Your task to perform on an android device: View the shopping cart on ebay.com. Add logitech g502 to the cart on ebay.com Image 0: 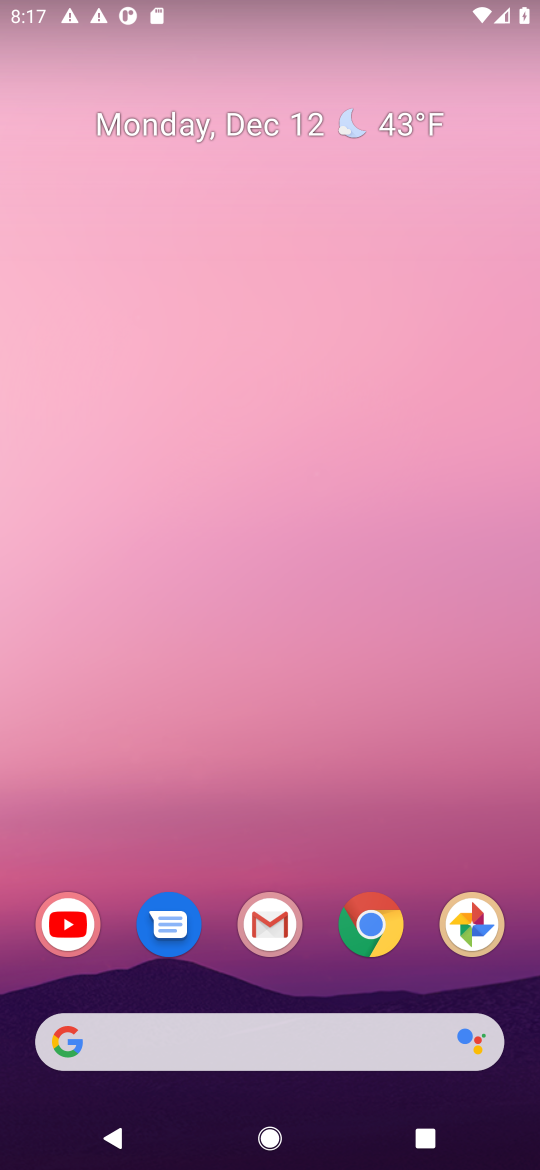
Step 0: click (239, 1054)
Your task to perform on an android device: View the shopping cart on ebay.com. Add logitech g502 to the cart on ebay.com Image 1: 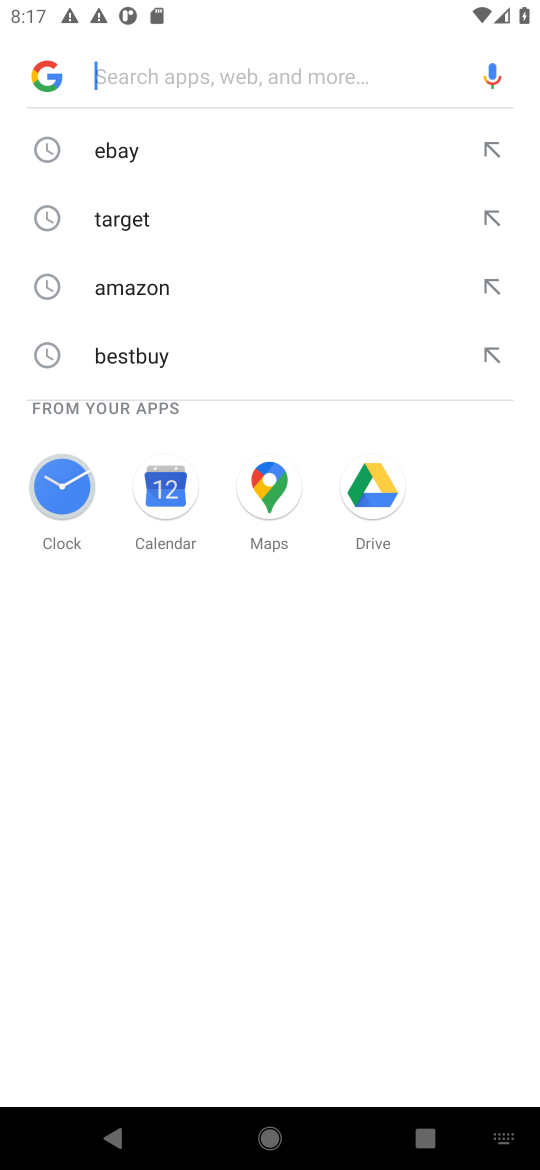
Step 1: click (112, 159)
Your task to perform on an android device: View the shopping cart on ebay.com. Add logitech g502 to the cart on ebay.com Image 2: 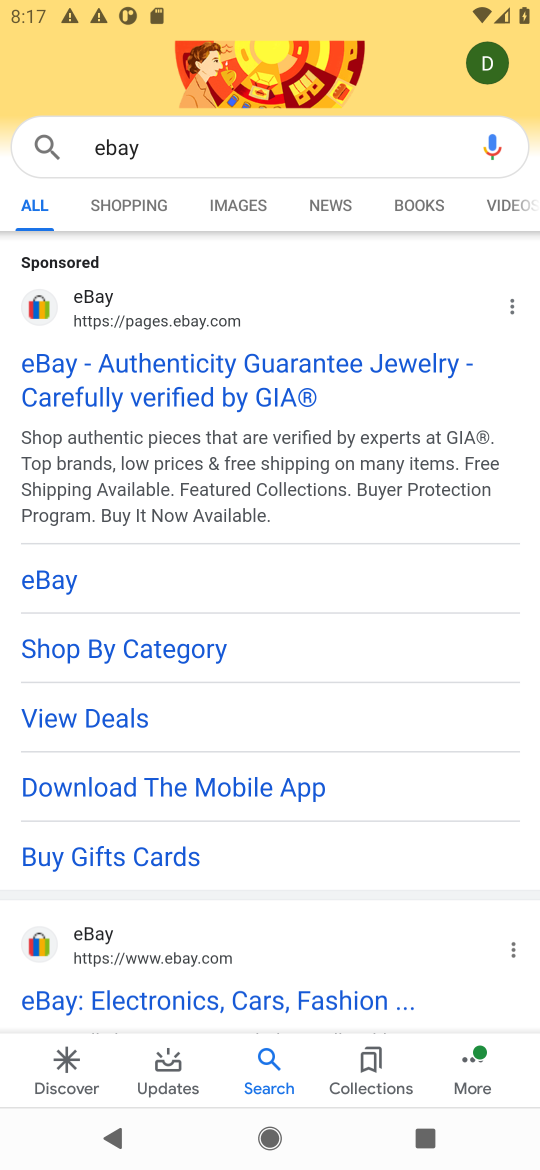
Step 2: click (80, 382)
Your task to perform on an android device: View the shopping cart on ebay.com. Add logitech g502 to the cart on ebay.com Image 3: 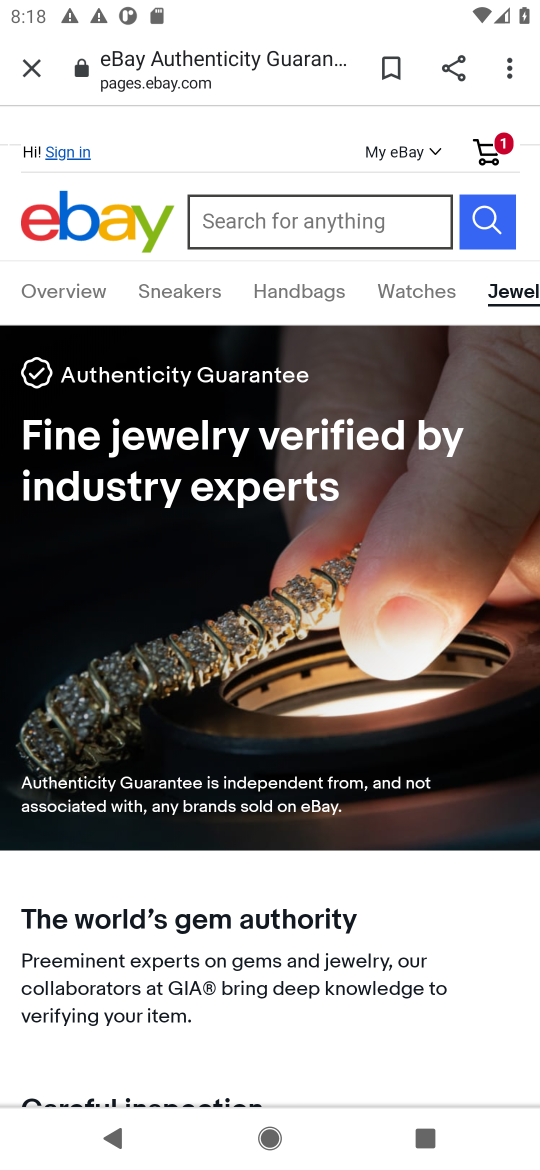
Step 3: click (492, 154)
Your task to perform on an android device: View the shopping cart on ebay.com. Add logitech g502 to the cart on ebay.com Image 4: 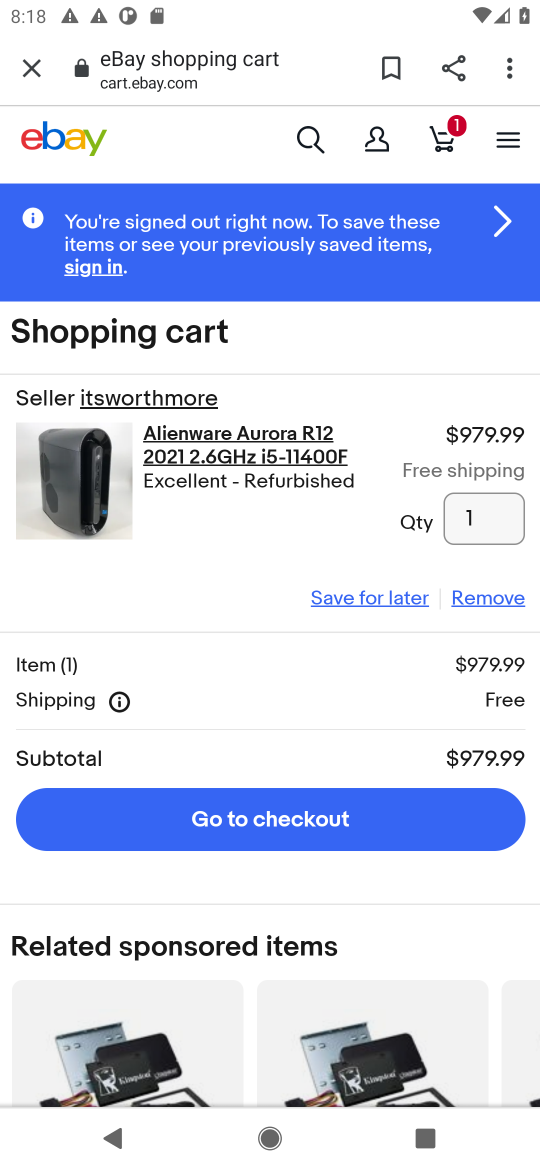
Step 4: click (471, 593)
Your task to perform on an android device: View the shopping cart on ebay.com. Add logitech g502 to the cart on ebay.com Image 5: 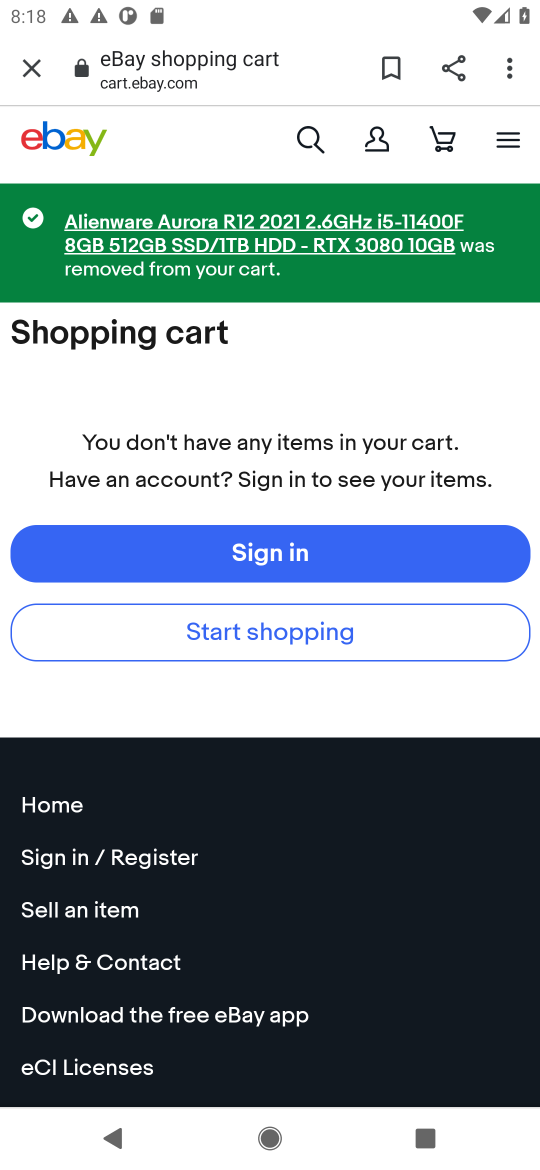
Step 5: click (308, 134)
Your task to perform on an android device: View the shopping cart on ebay.com. Add logitech g502 to the cart on ebay.com Image 6: 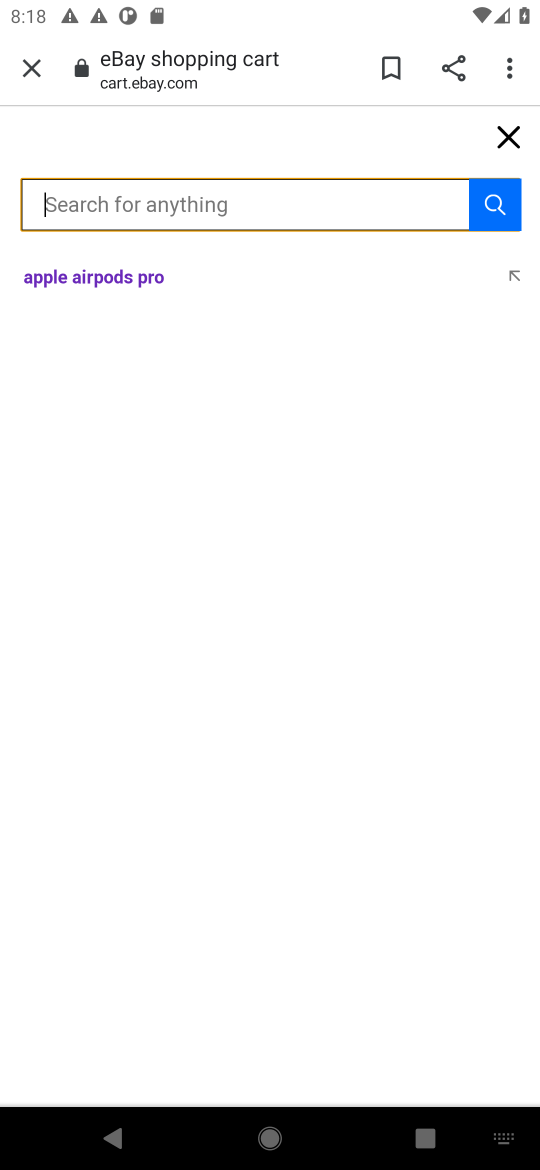
Step 6: type "logitech g502"
Your task to perform on an android device: View the shopping cart on ebay.com. Add logitech g502 to the cart on ebay.com Image 7: 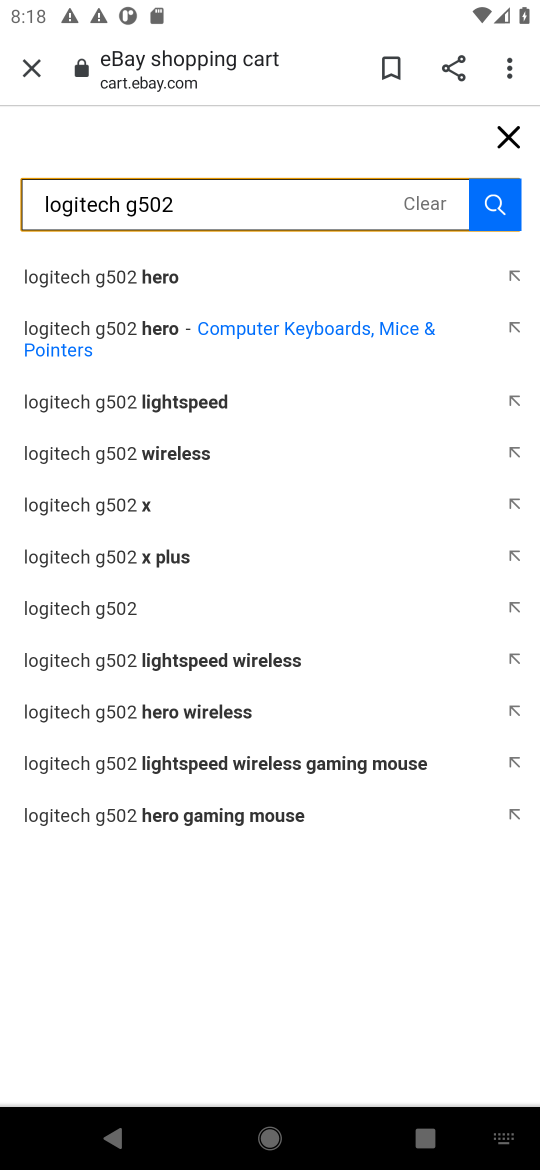
Step 7: click (84, 619)
Your task to perform on an android device: View the shopping cart on ebay.com. Add logitech g502 to the cart on ebay.com Image 8: 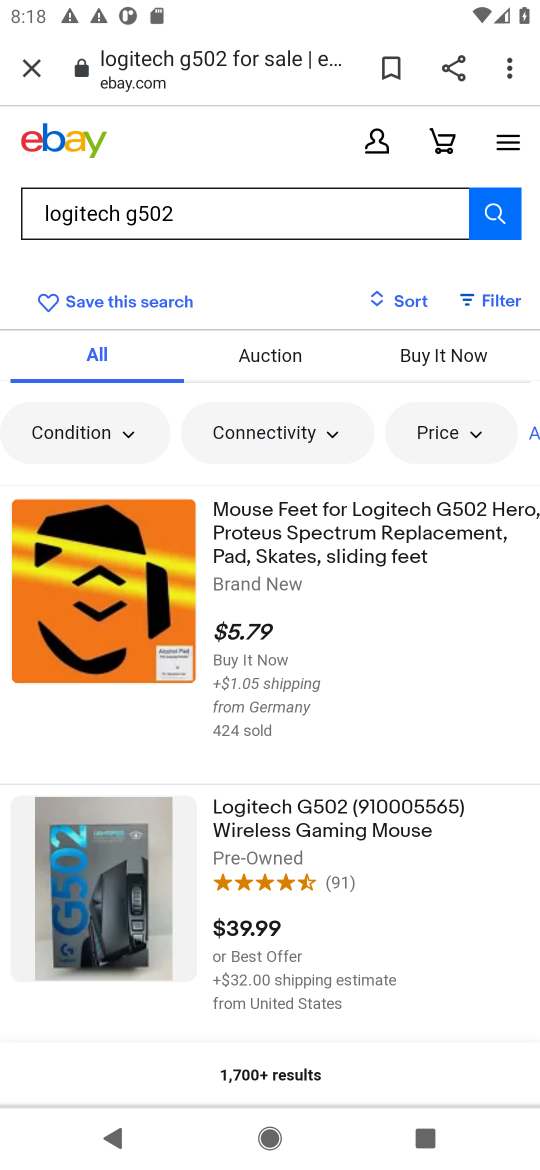
Step 8: click (250, 559)
Your task to perform on an android device: View the shopping cart on ebay.com. Add logitech g502 to the cart on ebay.com Image 9: 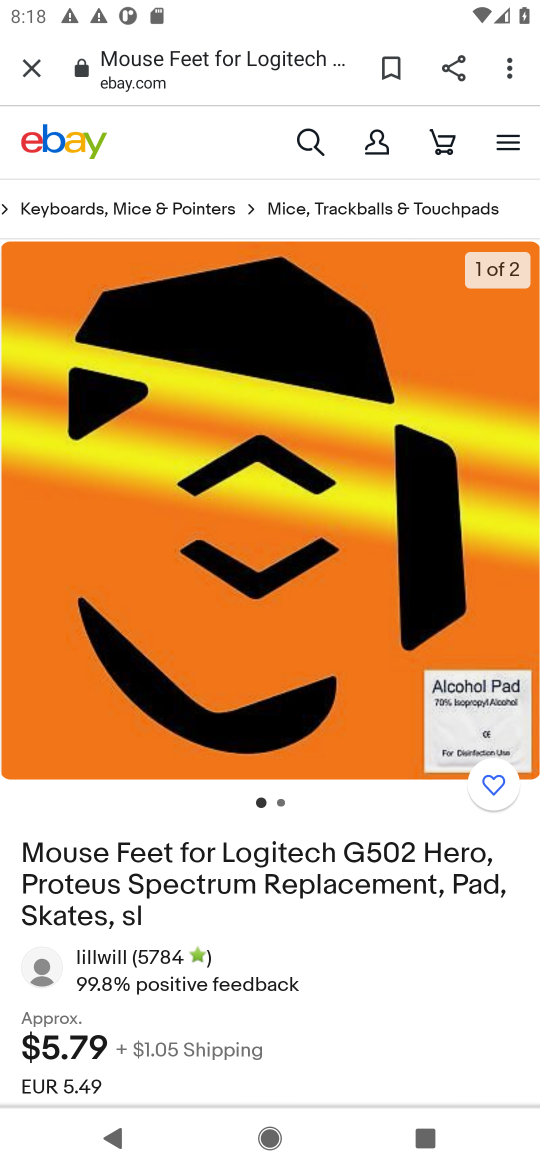
Step 9: drag from (429, 990) to (430, 769)
Your task to perform on an android device: View the shopping cart on ebay.com. Add logitech g502 to the cart on ebay.com Image 10: 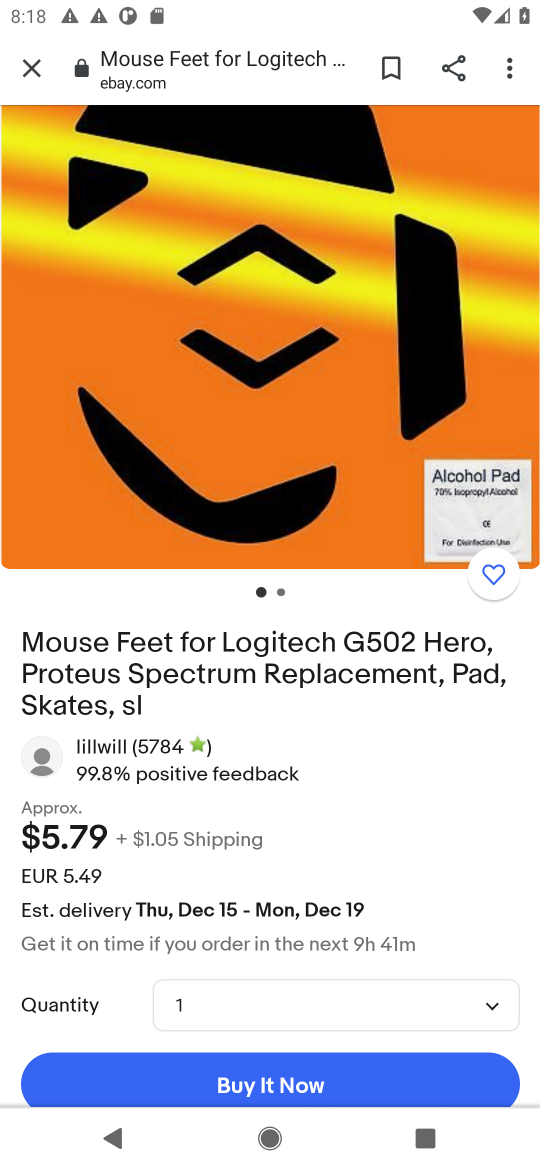
Step 10: drag from (356, 906) to (387, 684)
Your task to perform on an android device: View the shopping cart on ebay.com. Add logitech g502 to the cart on ebay.com Image 11: 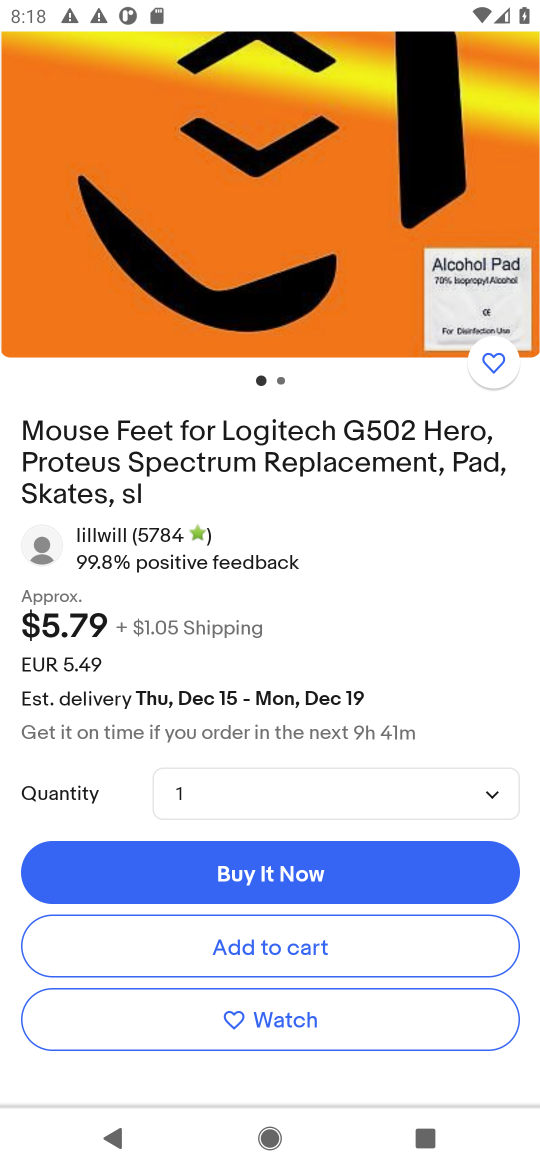
Step 11: click (281, 957)
Your task to perform on an android device: View the shopping cart on ebay.com. Add logitech g502 to the cart on ebay.com Image 12: 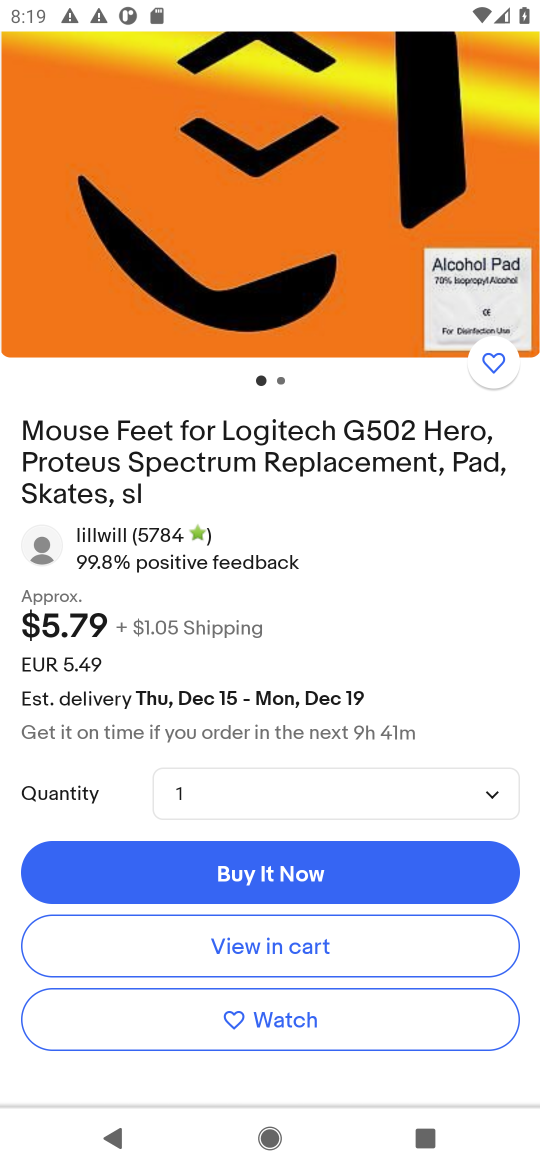
Step 12: task complete